Your task to perform on an android device: Open my contact list Image 0: 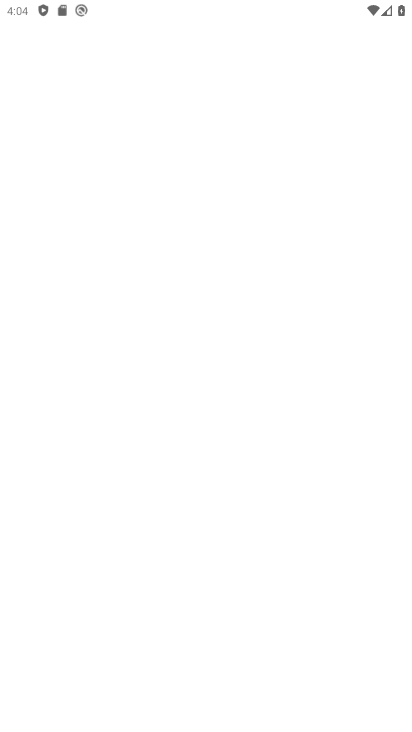
Step 0: press home button
Your task to perform on an android device: Open my contact list Image 1: 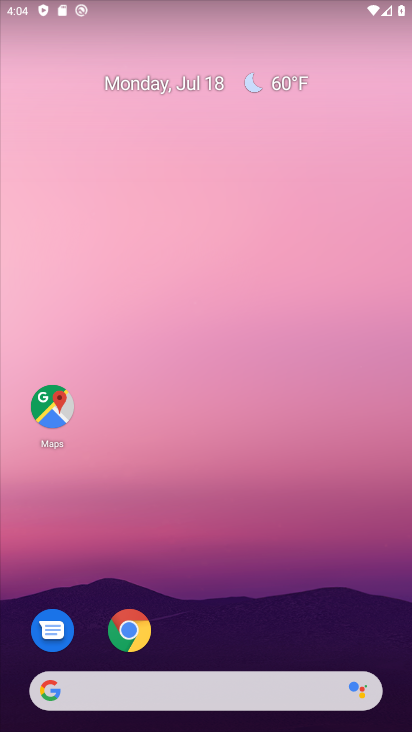
Step 1: drag from (162, 598) to (307, 109)
Your task to perform on an android device: Open my contact list Image 2: 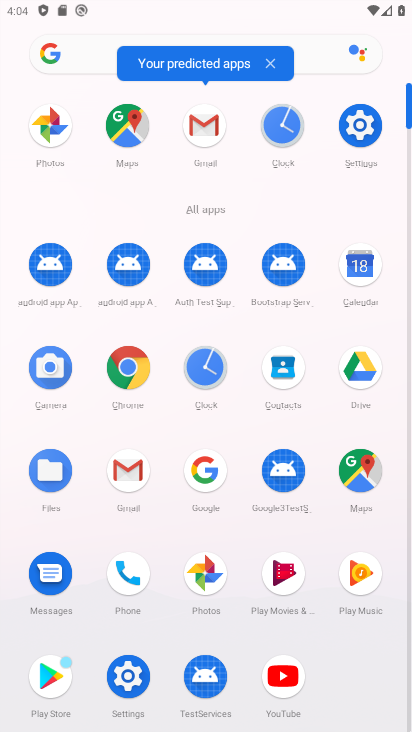
Step 2: click (268, 382)
Your task to perform on an android device: Open my contact list Image 3: 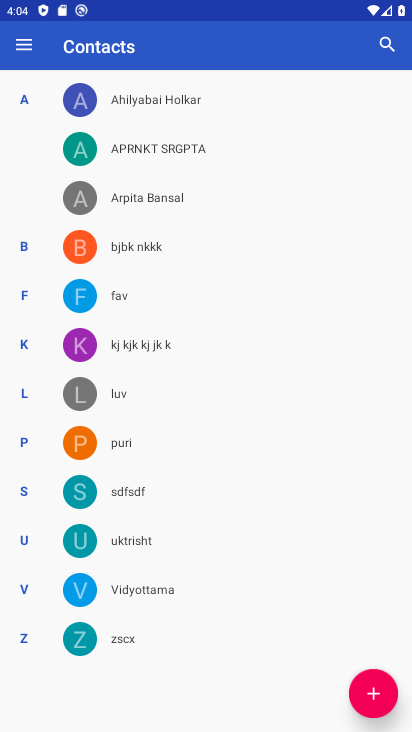
Step 3: task complete